Your task to perform on an android device: turn off data saver in the chrome app Image 0: 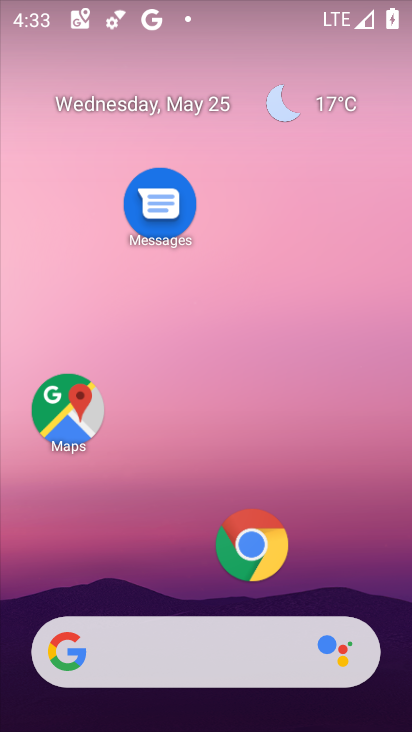
Step 0: click (250, 537)
Your task to perform on an android device: turn off data saver in the chrome app Image 1: 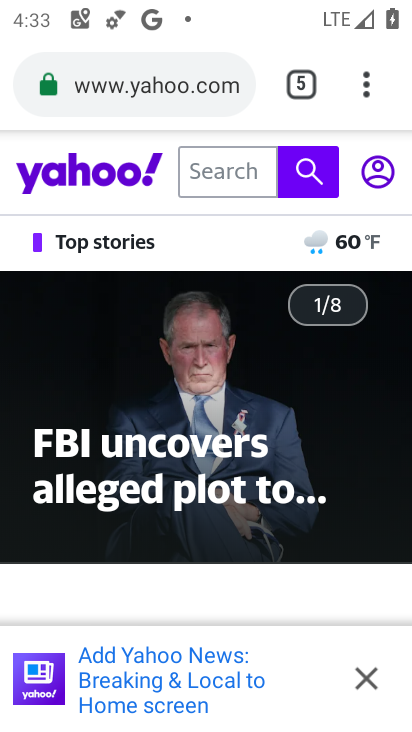
Step 1: click (374, 83)
Your task to perform on an android device: turn off data saver in the chrome app Image 2: 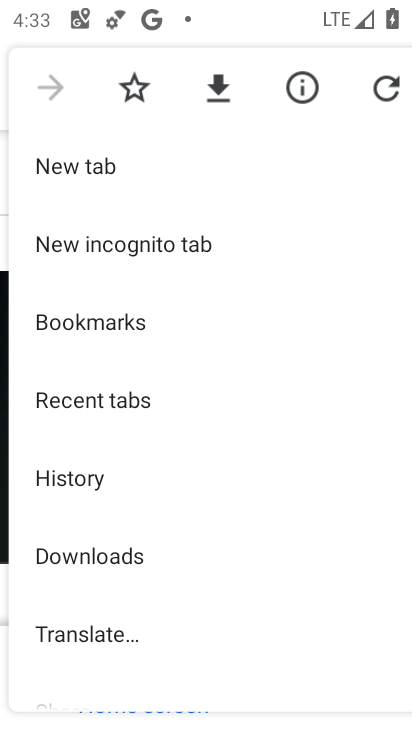
Step 2: drag from (169, 546) to (197, 142)
Your task to perform on an android device: turn off data saver in the chrome app Image 3: 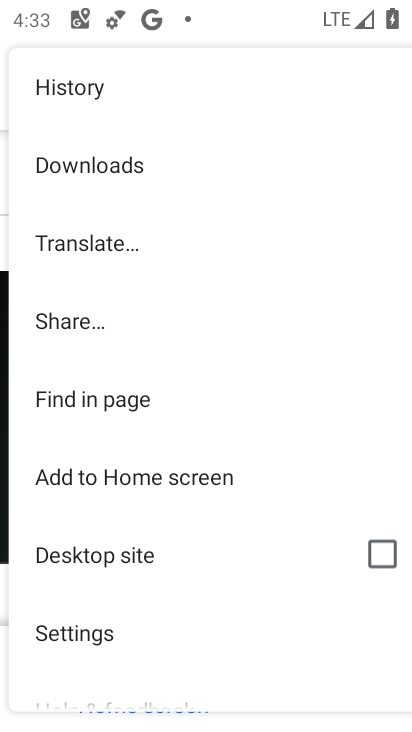
Step 3: click (99, 640)
Your task to perform on an android device: turn off data saver in the chrome app Image 4: 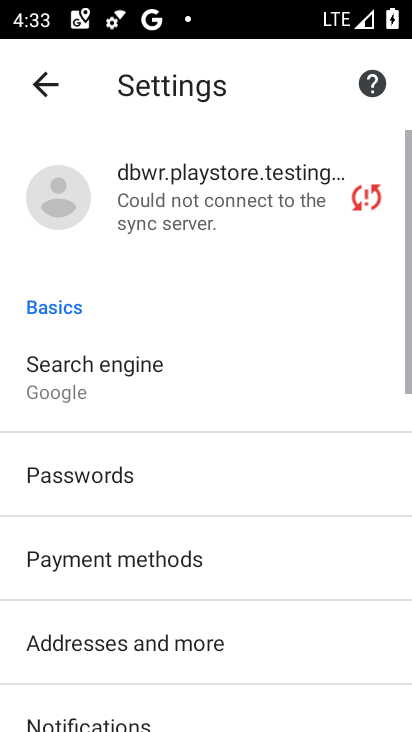
Step 4: drag from (339, 600) to (281, 208)
Your task to perform on an android device: turn off data saver in the chrome app Image 5: 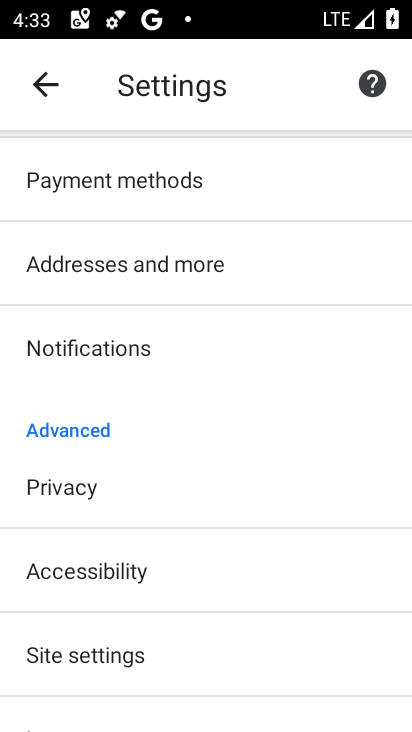
Step 5: drag from (190, 635) to (220, 222)
Your task to perform on an android device: turn off data saver in the chrome app Image 6: 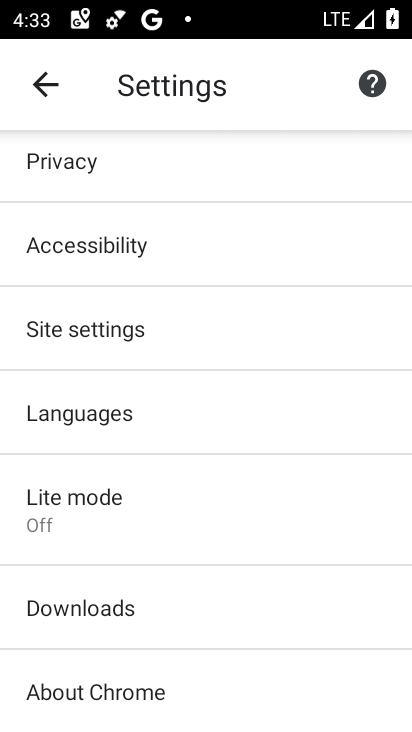
Step 6: click (117, 529)
Your task to perform on an android device: turn off data saver in the chrome app Image 7: 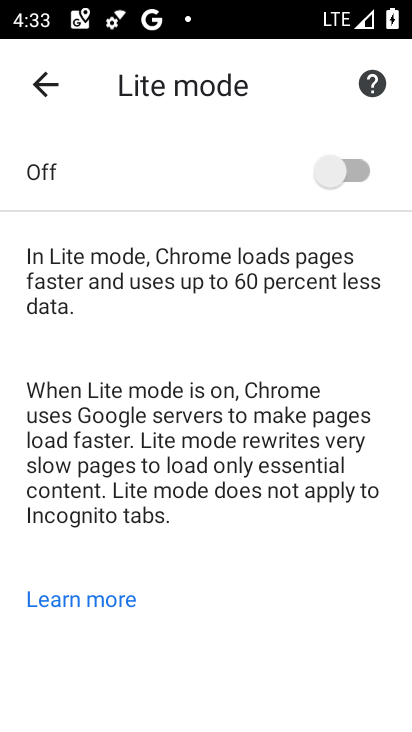
Step 7: task complete